Your task to perform on an android device: Open CNN.com Image 0: 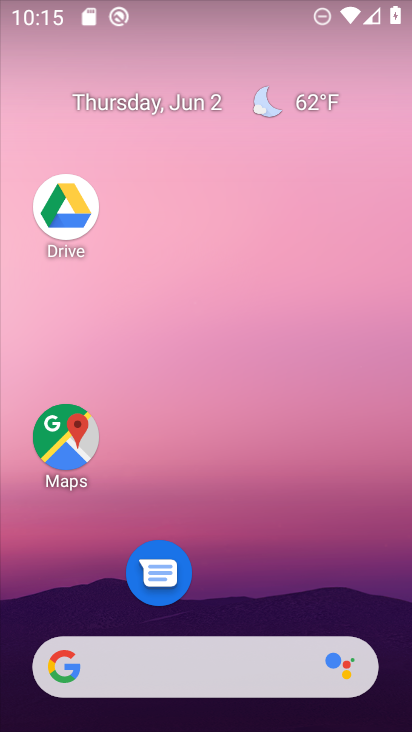
Step 0: drag from (247, 600) to (134, 18)
Your task to perform on an android device: Open CNN.com Image 1: 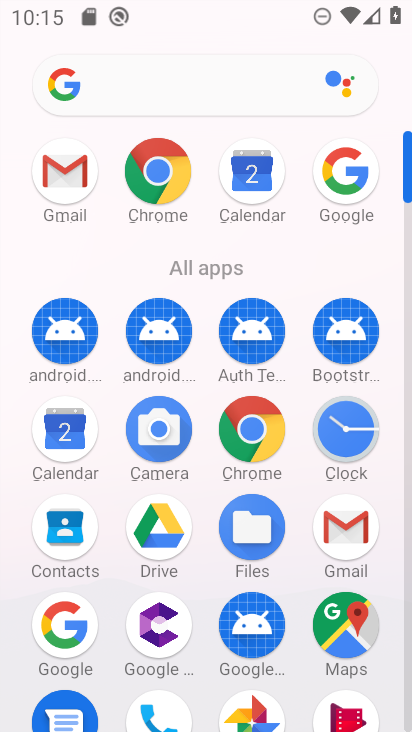
Step 1: click (270, 450)
Your task to perform on an android device: Open CNN.com Image 2: 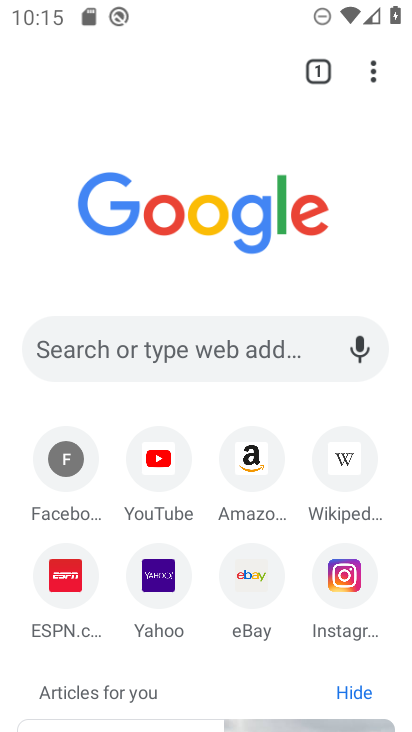
Step 2: click (152, 357)
Your task to perform on an android device: Open CNN.com Image 3: 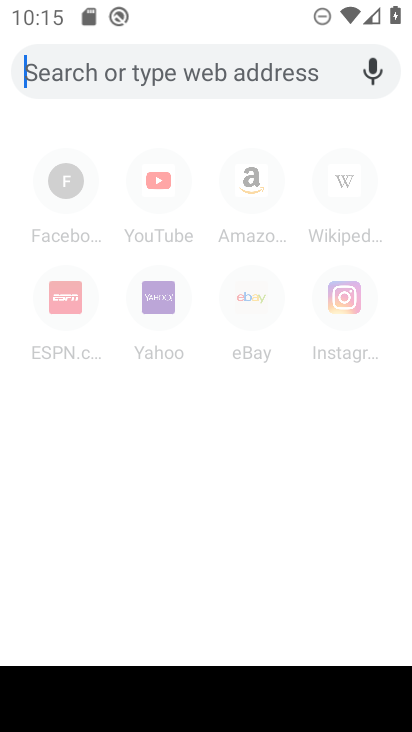
Step 3: type "cnn"
Your task to perform on an android device: Open CNN.com Image 4: 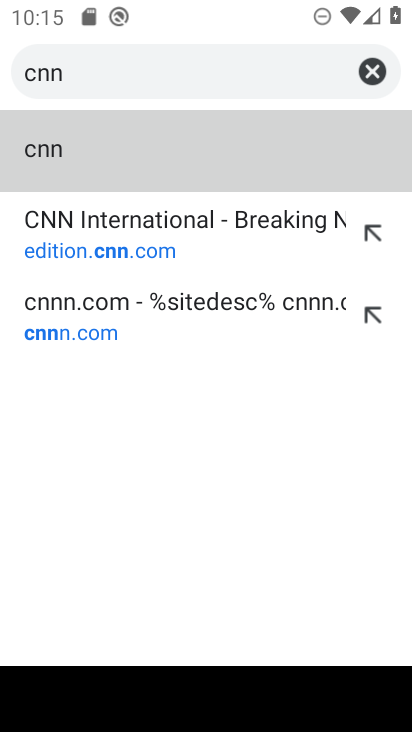
Step 4: click (155, 261)
Your task to perform on an android device: Open CNN.com Image 5: 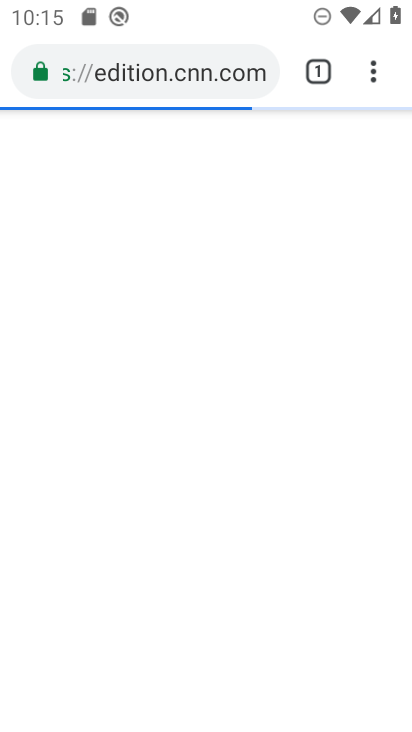
Step 5: task complete